Your task to perform on an android device: turn notification dots off Image 0: 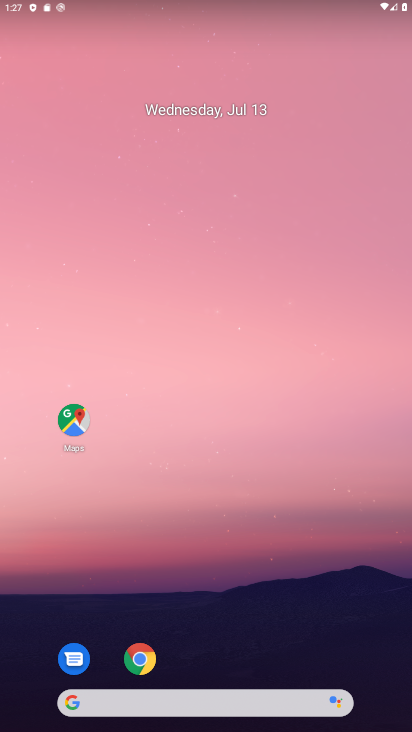
Step 0: drag from (381, 683) to (333, 130)
Your task to perform on an android device: turn notification dots off Image 1: 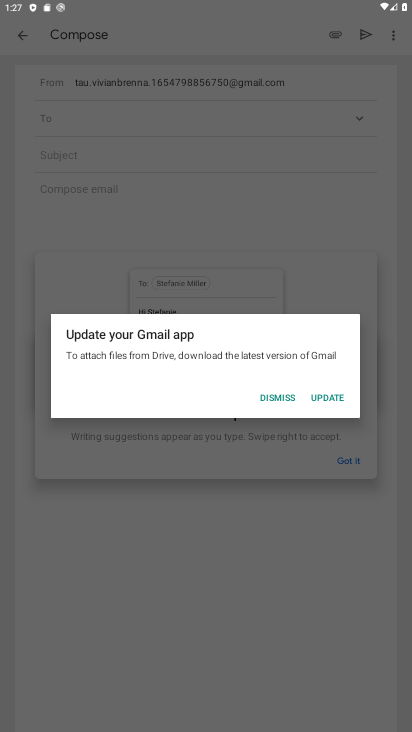
Step 1: press home button
Your task to perform on an android device: turn notification dots off Image 2: 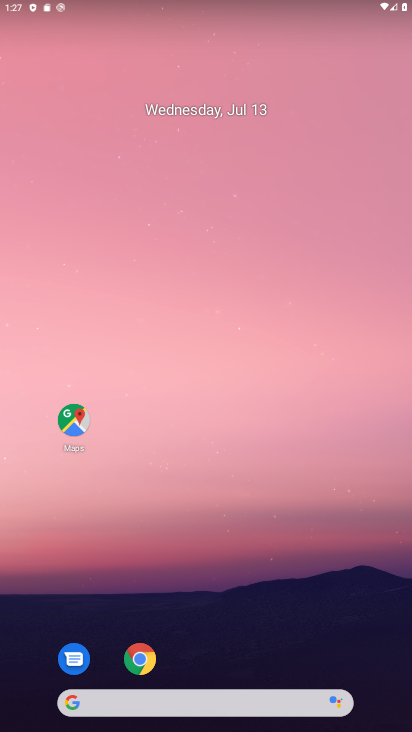
Step 2: drag from (380, 673) to (267, 100)
Your task to perform on an android device: turn notification dots off Image 3: 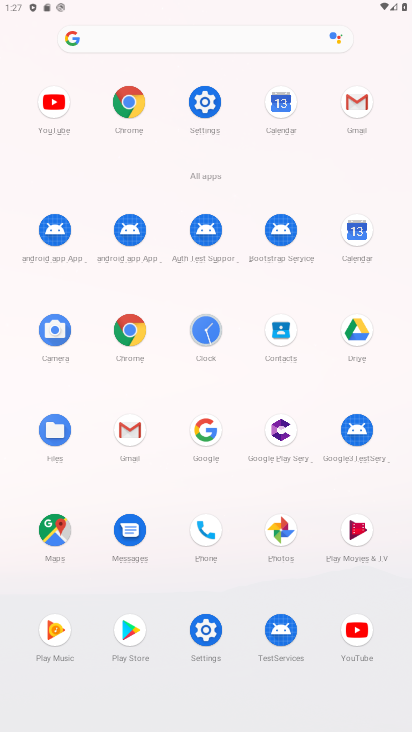
Step 3: click (206, 627)
Your task to perform on an android device: turn notification dots off Image 4: 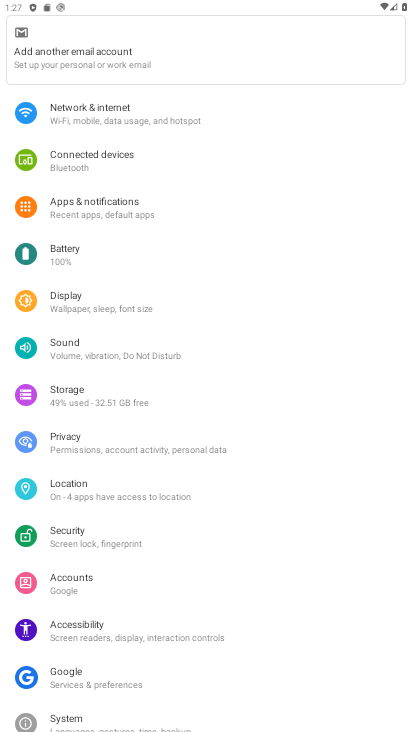
Step 4: click (87, 208)
Your task to perform on an android device: turn notification dots off Image 5: 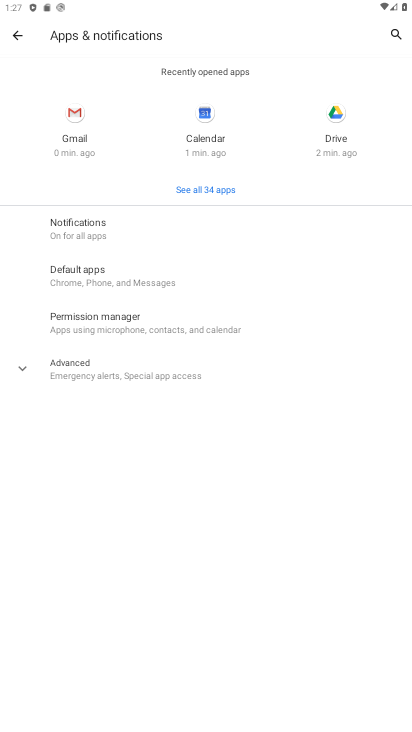
Step 5: click (64, 225)
Your task to perform on an android device: turn notification dots off Image 6: 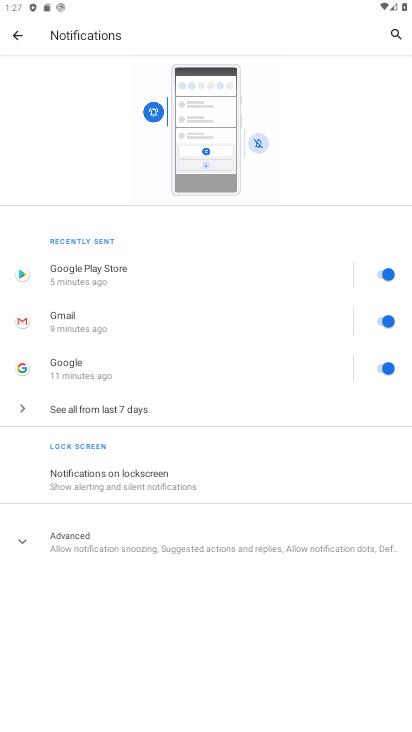
Step 6: click (22, 546)
Your task to perform on an android device: turn notification dots off Image 7: 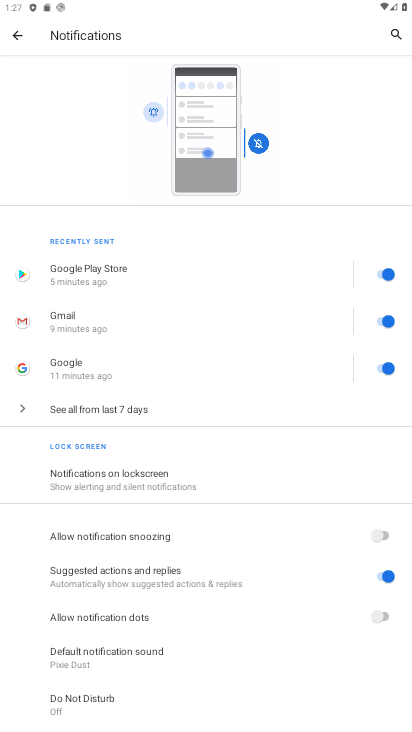
Step 7: task complete